Your task to perform on an android device: find photos in the google photos app Image 0: 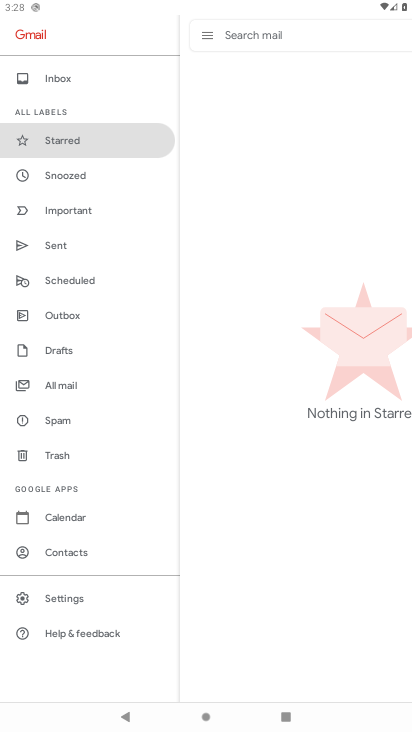
Step 0: press home button
Your task to perform on an android device: find photos in the google photos app Image 1: 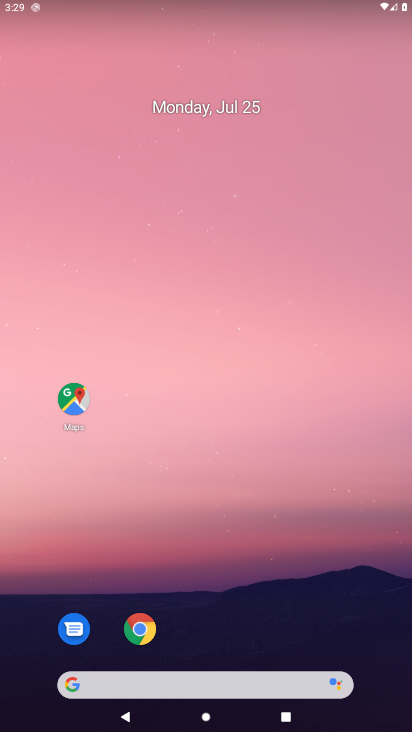
Step 1: drag from (78, 528) to (174, 269)
Your task to perform on an android device: find photos in the google photos app Image 2: 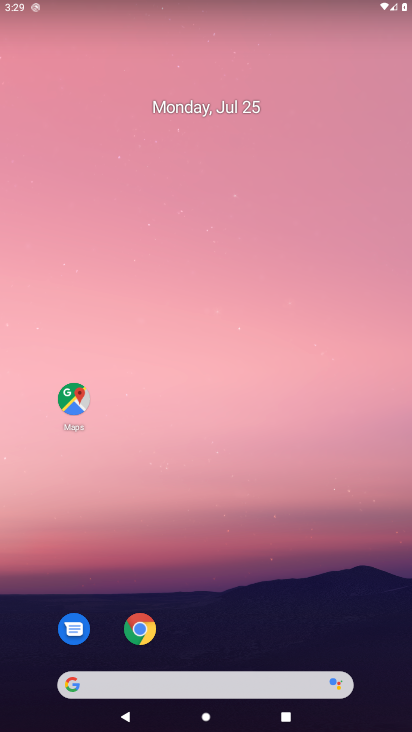
Step 2: drag from (26, 683) to (276, 89)
Your task to perform on an android device: find photos in the google photos app Image 3: 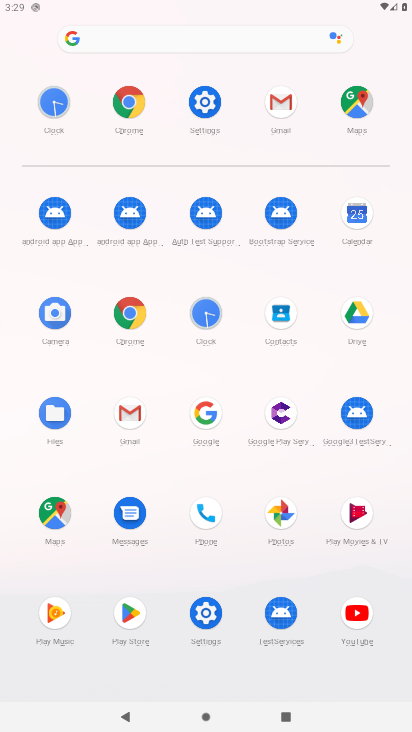
Step 3: click (277, 504)
Your task to perform on an android device: find photos in the google photos app Image 4: 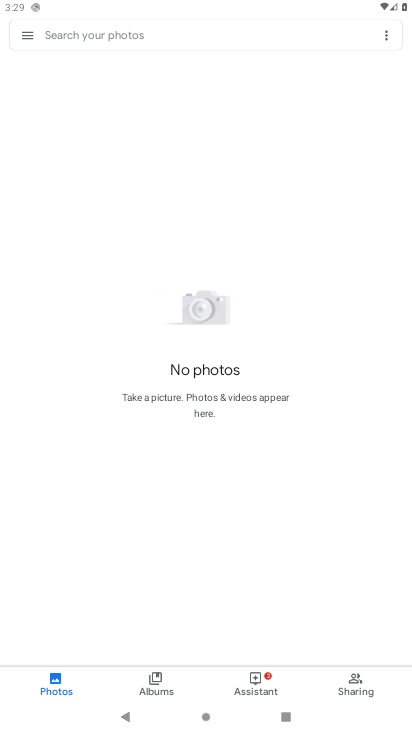
Step 4: click (30, 39)
Your task to perform on an android device: find photos in the google photos app Image 5: 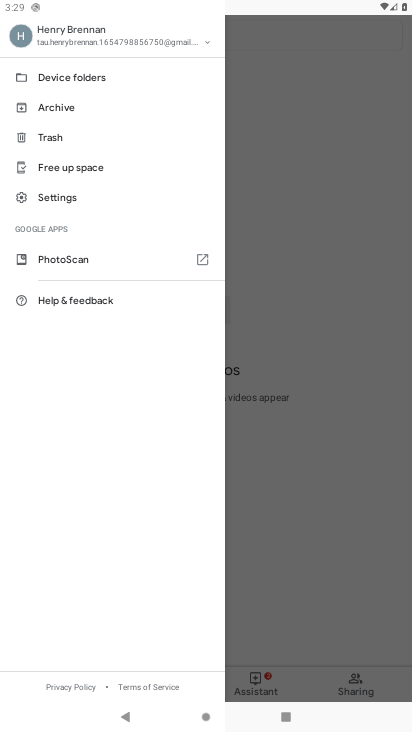
Step 5: click (257, 182)
Your task to perform on an android device: find photos in the google photos app Image 6: 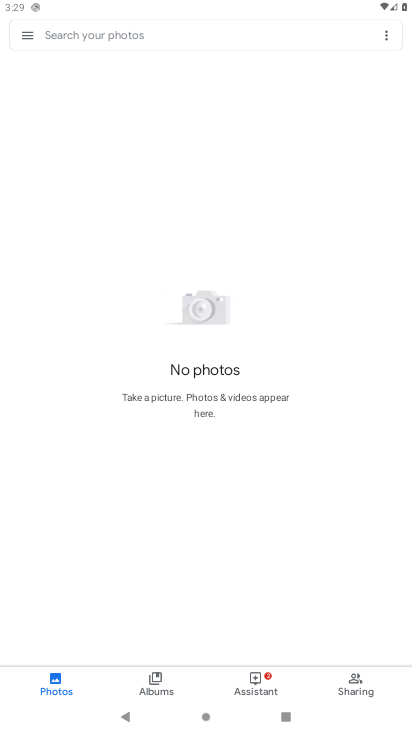
Step 6: task complete